Your task to perform on an android device: see creations saved in the google photos Image 0: 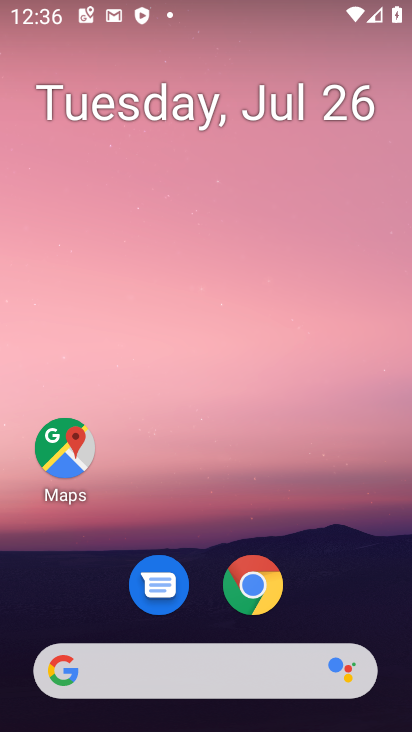
Step 0: press home button
Your task to perform on an android device: see creations saved in the google photos Image 1: 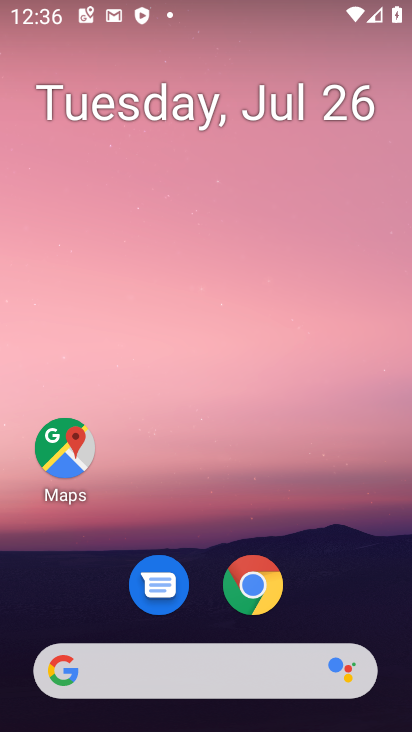
Step 1: drag from (192, 682) to (304, 207)
Your task to perform on an android device: see creations saved in the google photos Image 2: 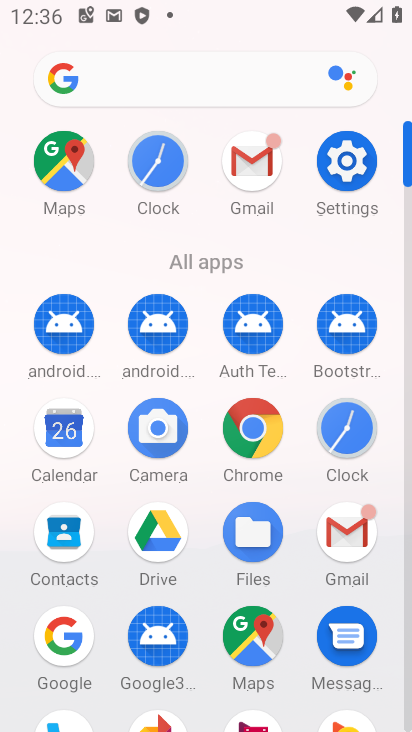
Step 2: drag from (185, 616) to (287, 139)
Your task to perform on an android device: see creations saved in the google photos Image 3: 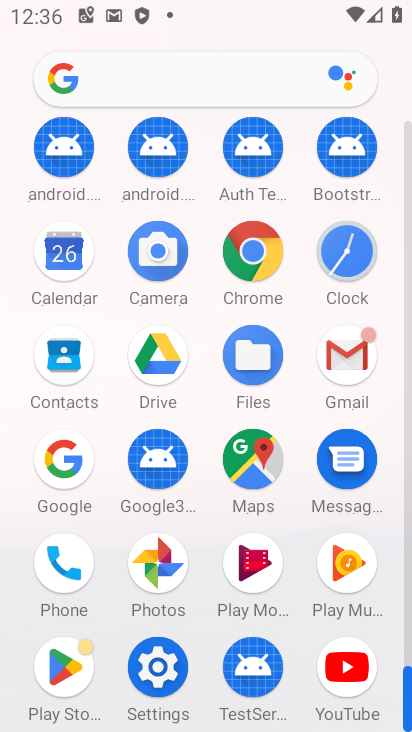
Step 3: click (153, 563)
Your task to perform on an android device: see creations saved in the google photos Image 4: 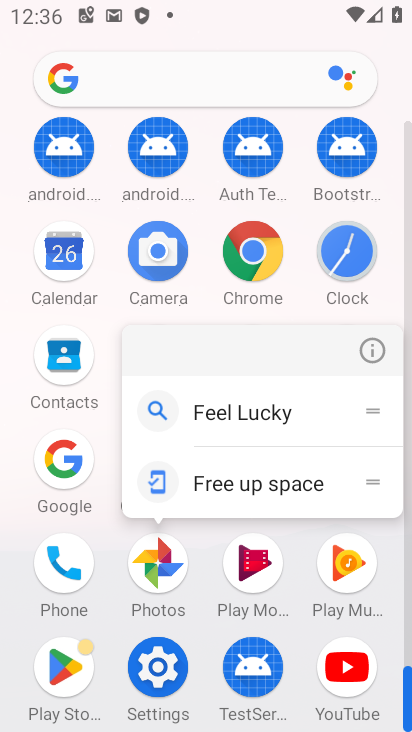
Step 4: click (156, 570)
Your task to perform on an android device: see creations saved in the google photos Image 5: 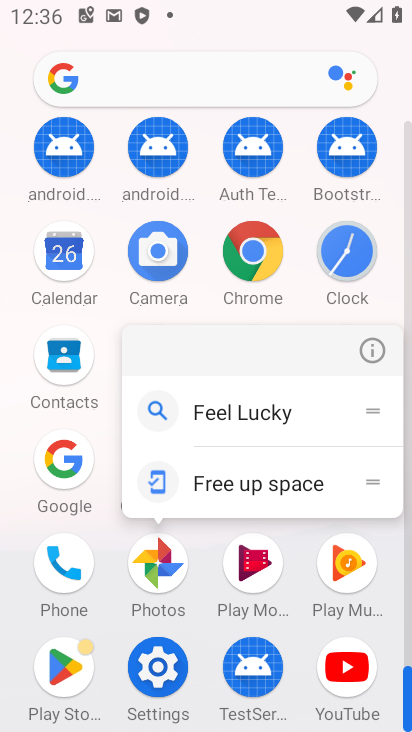
Step 5: click (156, 570)
Your task to perform on an android device: see creations saved in the google photos Image 6: 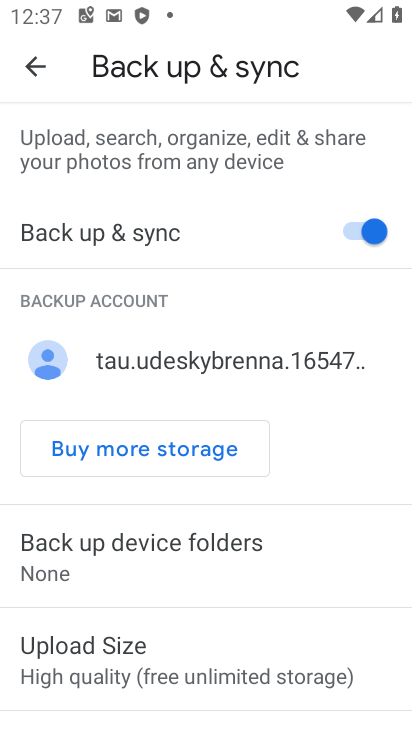
Step 6: click (35, 65)
Your task to perform on an android device: see creations saved in the google photos Image 7: 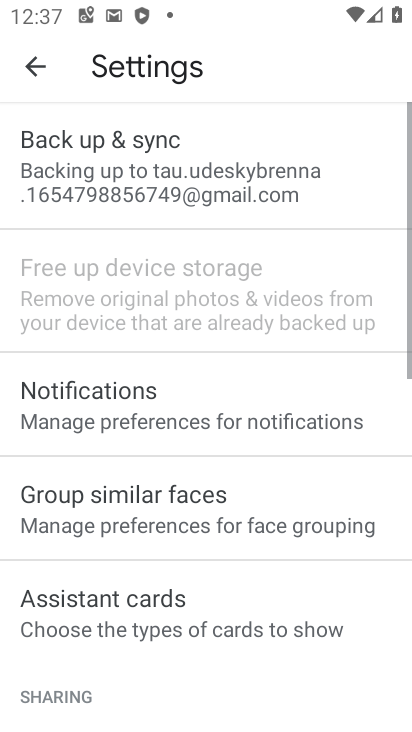
Step 7: click (35, 65)
Your task to perform on an android device: see creations saved in the google photos Image 8: 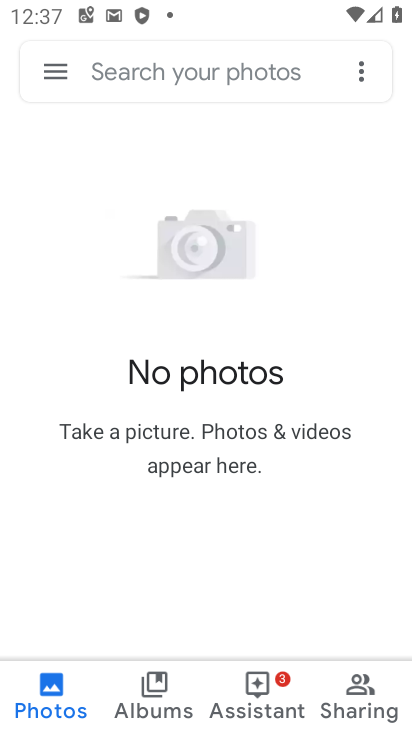
Step 8: click (173, 696)
Your task to perform on an android device: see creations saved in the google photos Image 9: 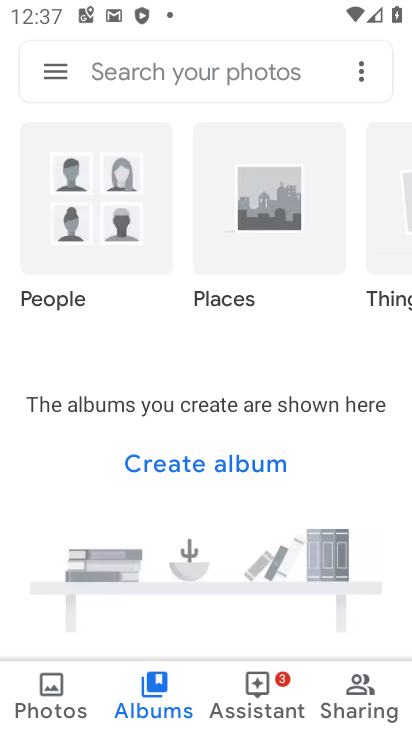
Step 9: click (177, 56)
Your task to perform on an android device: see creations saved in the google photos Image 10: 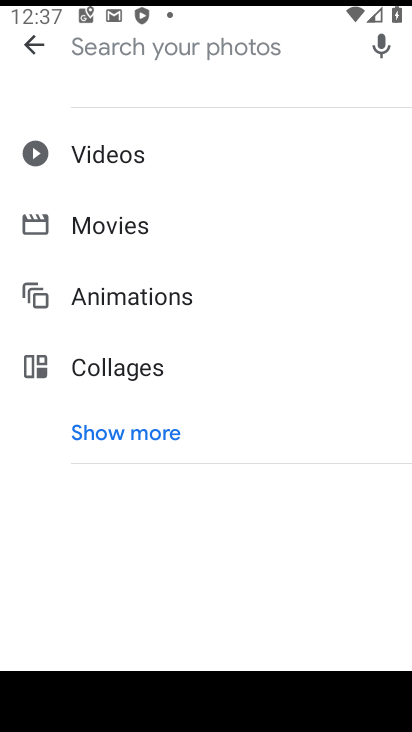
Step 10: click (128, 439)
Your task to perform on an android device: see creations saved in the google photos Image 11: 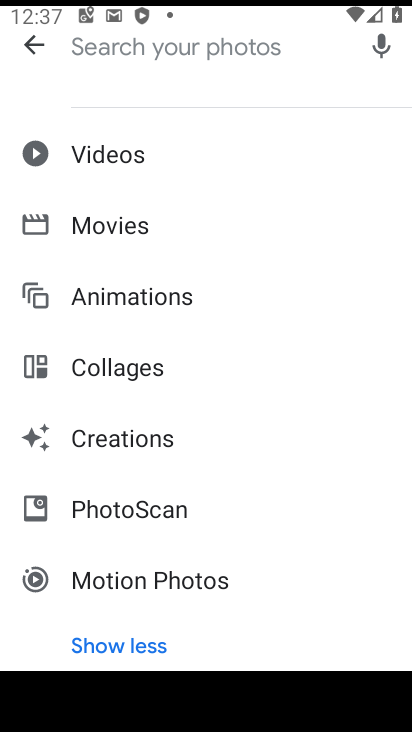
Step 11: click (140, 447)
Your task to perform on an android device: see creations saved in the google photos Image 12: 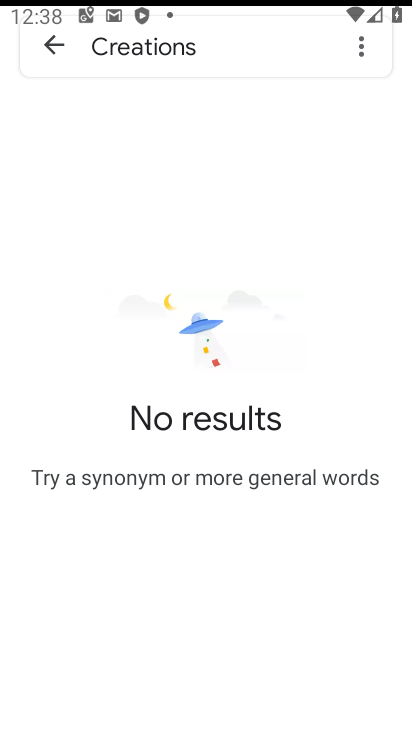
Step 12: task complete